Your task to perform on an android device: make emails show in primary in the gmail app Image 0: 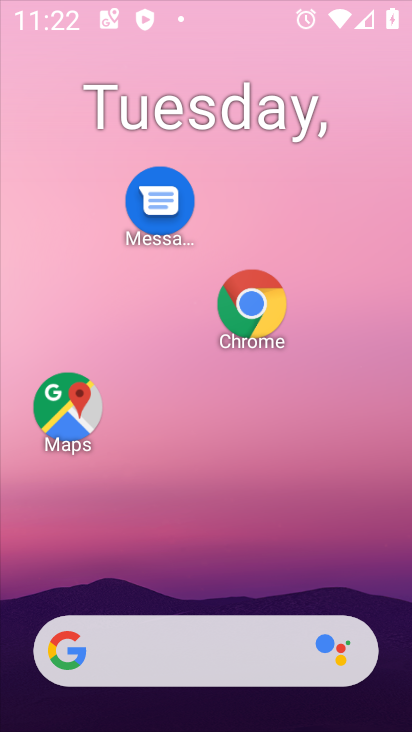
Step 0: drag from (221, 607) to (365, 165)
Your task to perform on an android device: make emails show in primary in the gmail app Image 1: 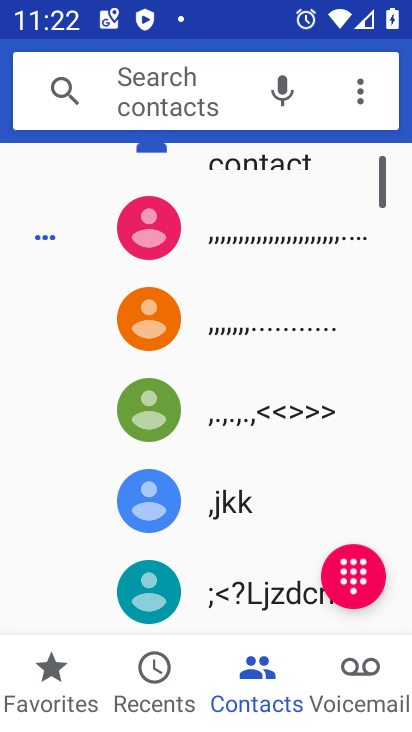
Step 1: press home button
Your task to perform on an android device: make emails show in primary in the gmail app Image 2: 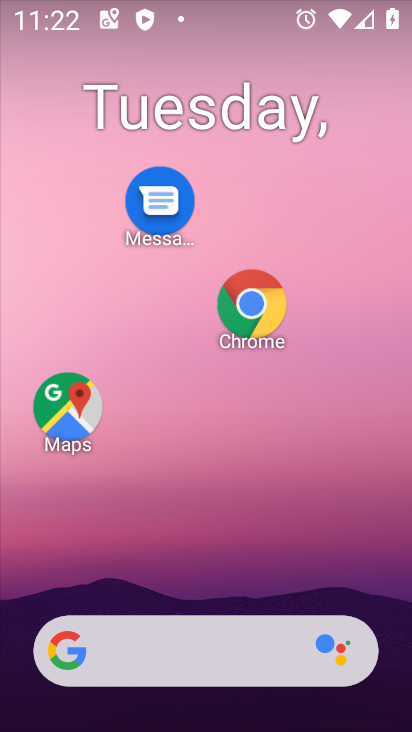
Step 2: drag from (209, 609) to (280, 182)
Your task to perform on an android device: make emails show in primary in the gmail app Image 3: 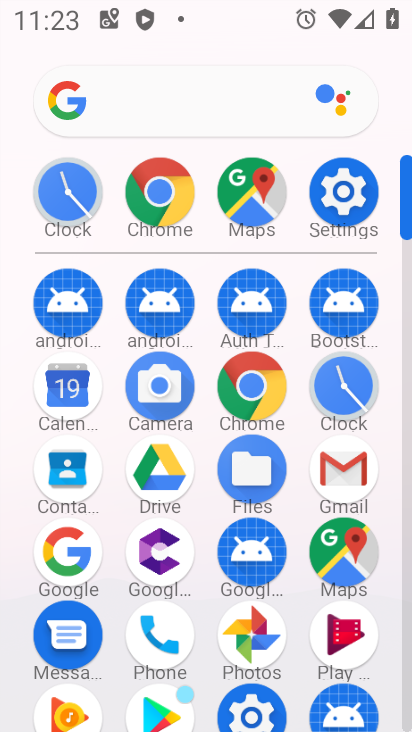
Step 3: click (337, 459)
Your task to perform on an android device: make emails show in primary in the gmail app Image 4: 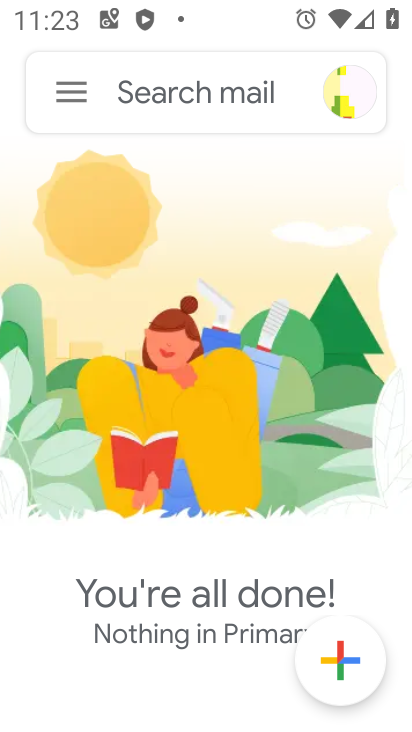
Step 4: click (71, 84)
Your task to perform on an android device: make emails show in primary in the gmail app Image 5: 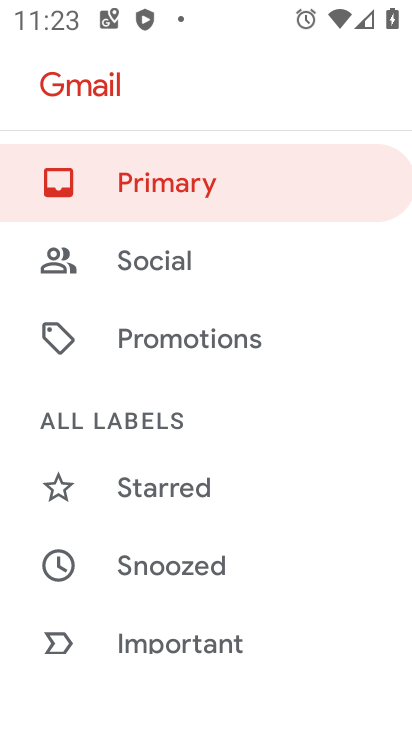
Step 5: drag from (251, 625) to (360, 182)
Your task to perform on an android device: make emails show in primary in the gmail app Image 6: 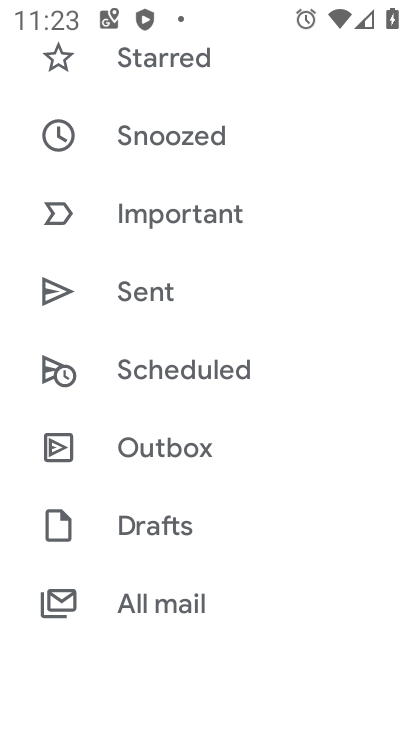
Step 6: click (179, 604)
Your task to perform on an android device: make emails show in primary in the gmail app Image 7: 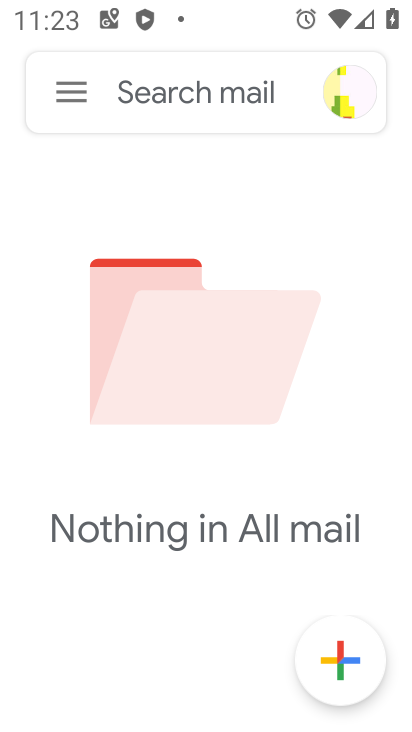
Step 7: task complete